Your task to perform on an android device: uninstall "Pandora - Music & Podcasts" Image 0: 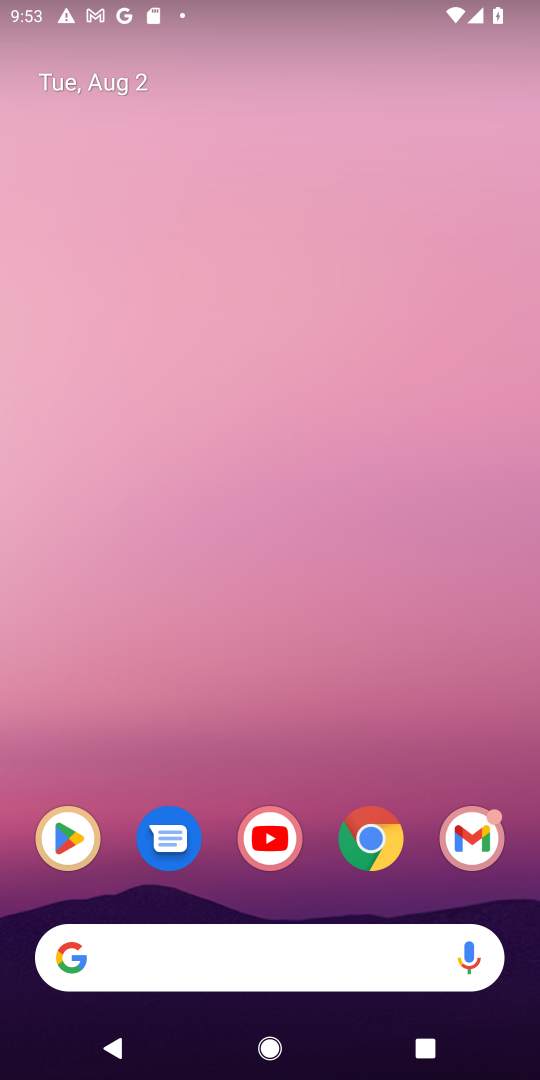
Step 0: press home button
Your task to perform on an android device: uninstall "Pandora - Music & Podcasts" Image 1: 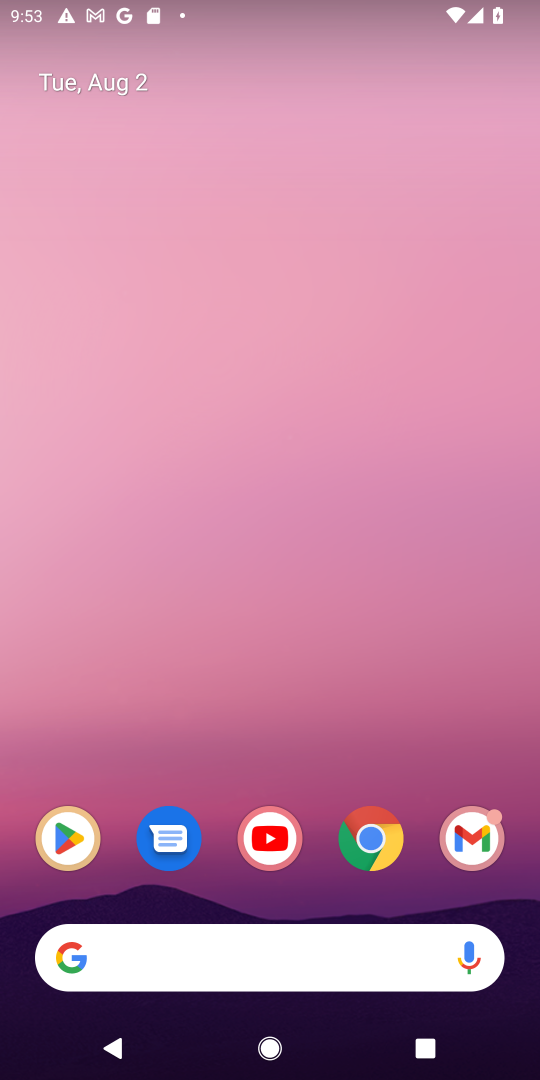
Step 1: drag from (309, 763) to (315, 103)
Your task to perform on an android device: uninstall "Pandora - Music & Podcasts" Image 2: 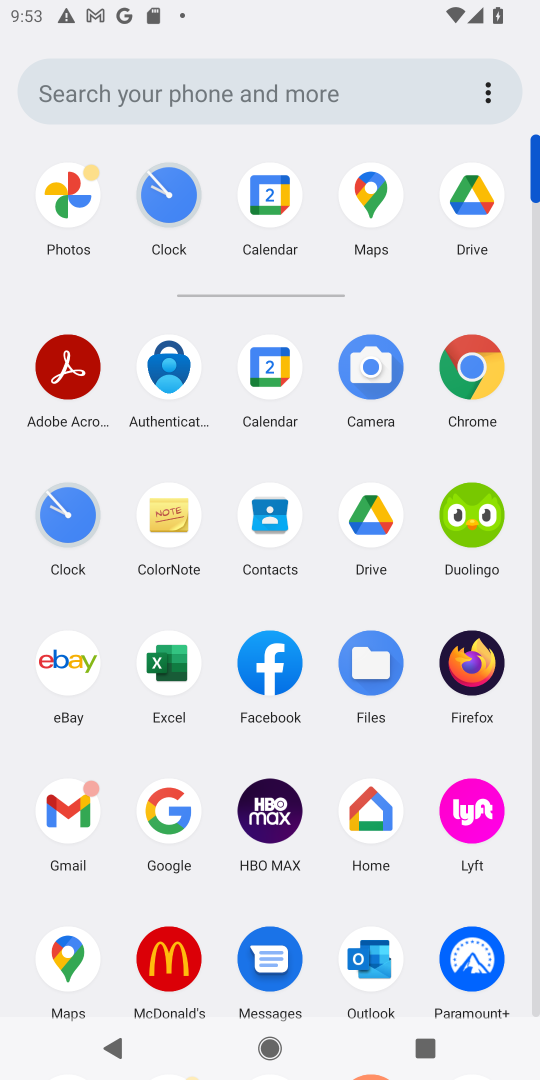
Step 2: drag from (409, 896) to (404, 597)
Your task to perform on an android device: uninstall "Pandora - Music & Podcasts" Image 3: 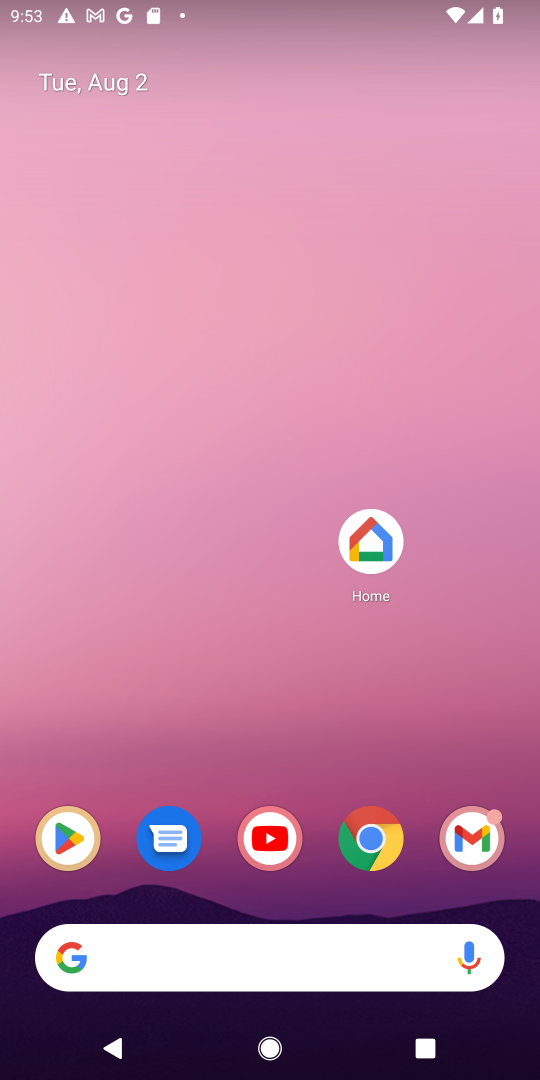
Step 3: drag from (281, 660) to (287, 72)
Your task to perform on an android device: uninstall "Pandora - Music & Podcasts" Image 4: 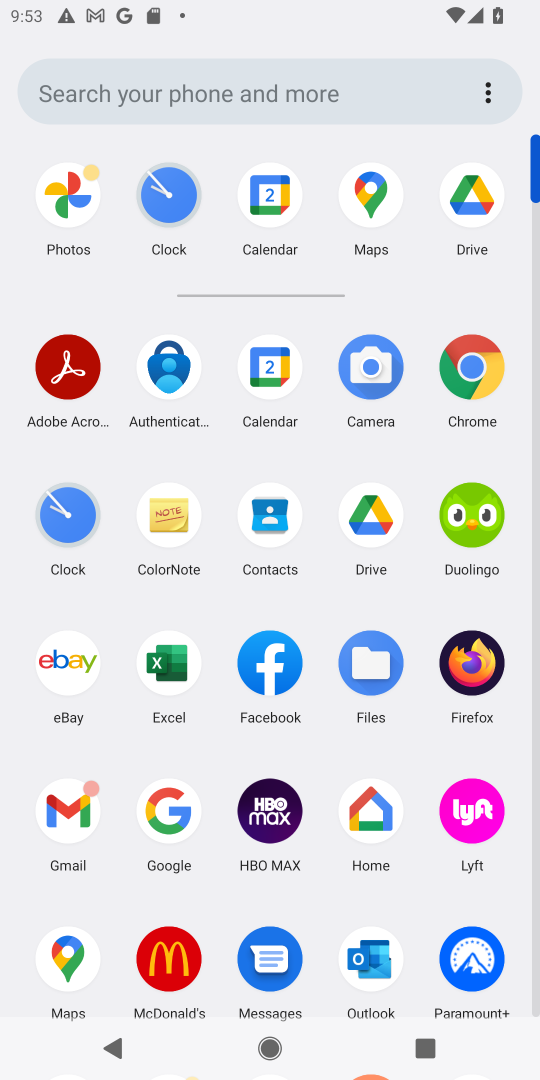
Step 4: drag from (311, 901) to (321, 481)
Your task to perform on an android device: uninstall "Pandora - Music & Podcasts" Image 5: 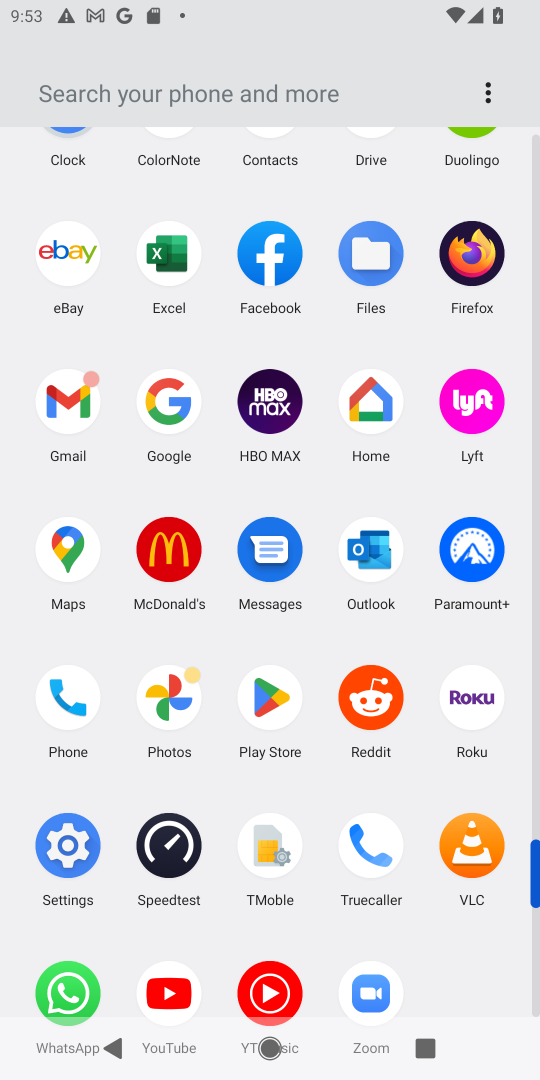
Step 5: click (265, 725)
Your task to perform on an android device: uninstall "Pandora - Music & Podcasts" Image 6: 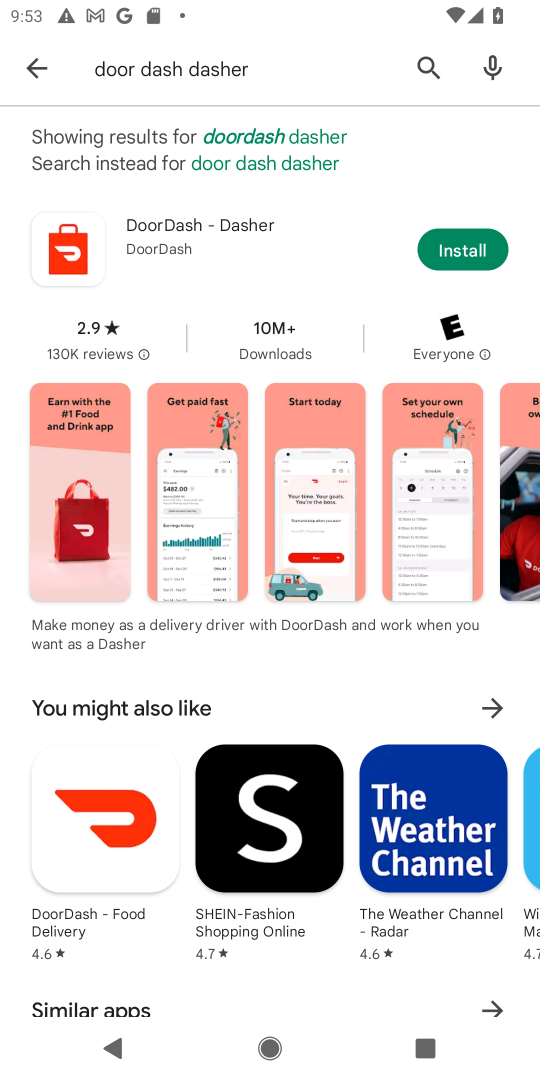
Step 6: click (427, 65)
Your task to perform on an android device: uninstall "Pandora - Music & Podcasts" Image 7: 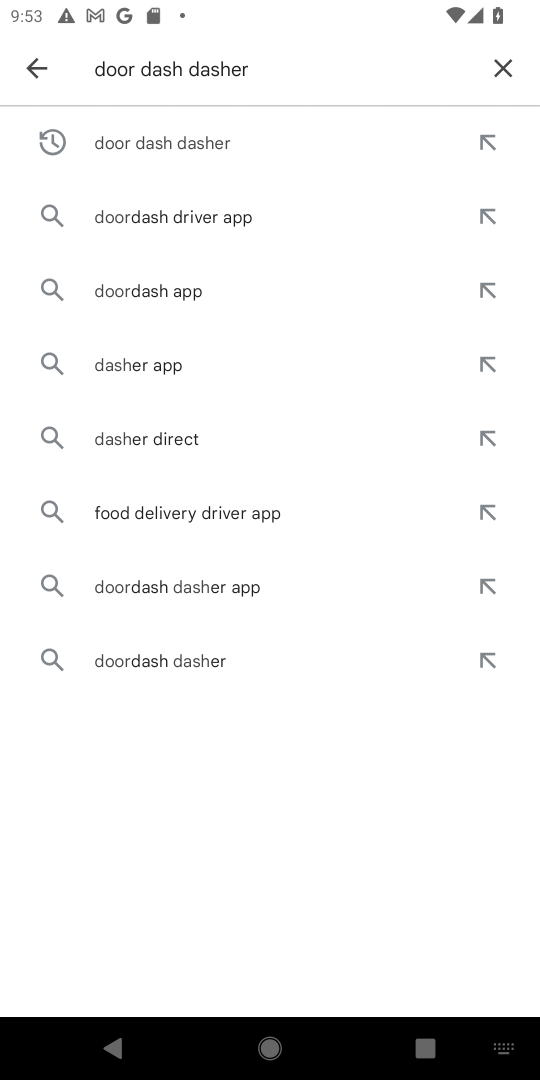
Step 7: click (515, 63)
Your task to perform on an android device: uninstall "Pandora - Music & Podcasts" Image 8: 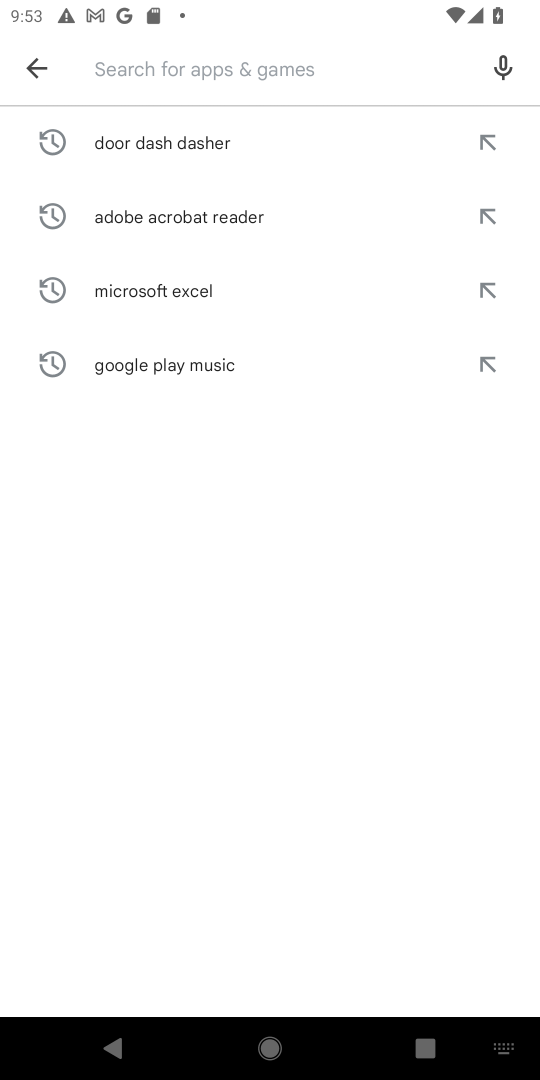
Step 8: click (285, 75)
Your task to perform on an android device: uninstall "Pandora - Music & Podcasts" Image 9: 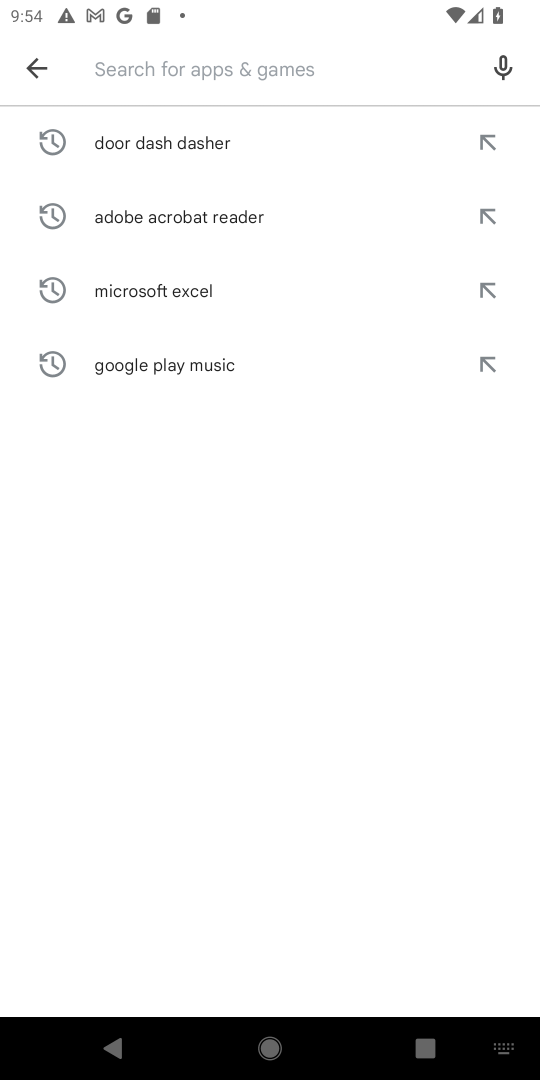
Step 9: type "pandora music prodcasts"
Your task to perform on an android device: uninstall "Pandora - Music & Podcasts" Image 10: 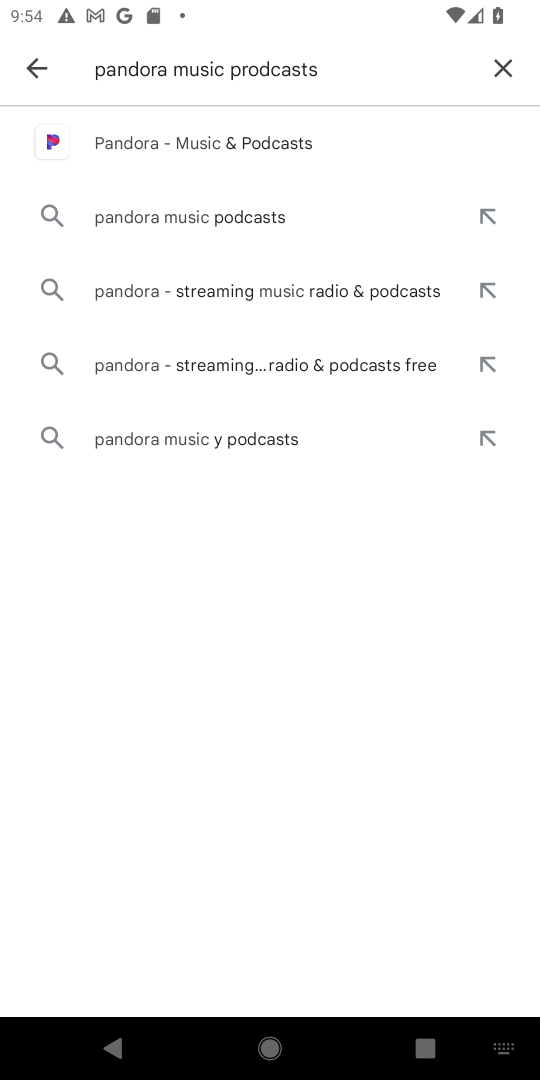
Step 10: click (267, 138)
Your task to perform on an android device: uninstall "Pandora - Music & Podcasts" Image 11: 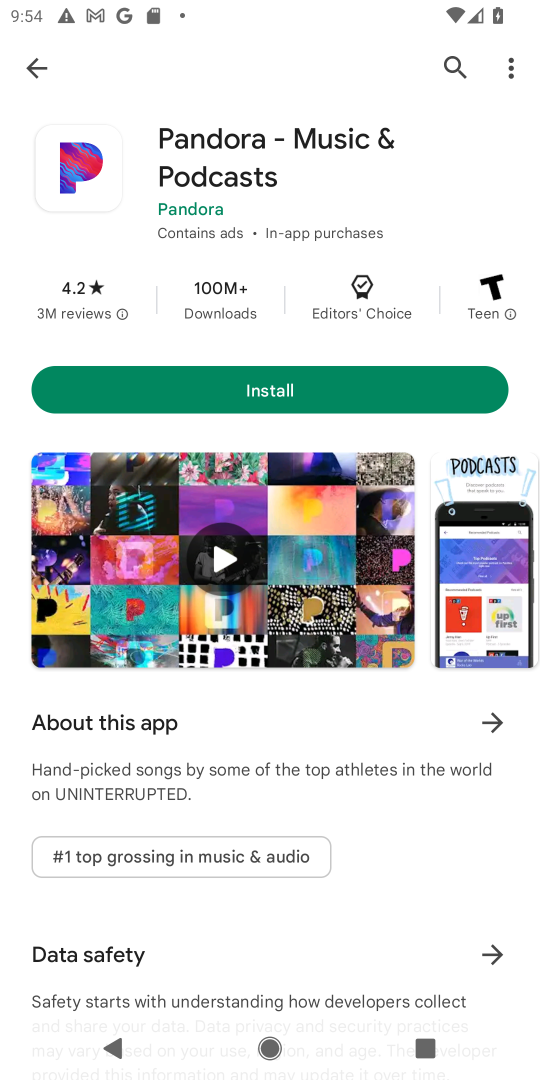
Step 11: task complete